Your task to perform on an android device: What's the weather going to be this weekend? Image 0: 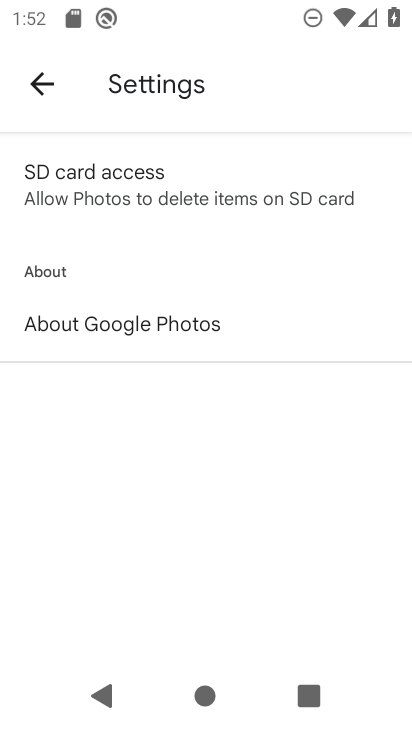
Step 0: press home button
Your task to perform on an android device: What's the weather going to be this weekend? Image 1: 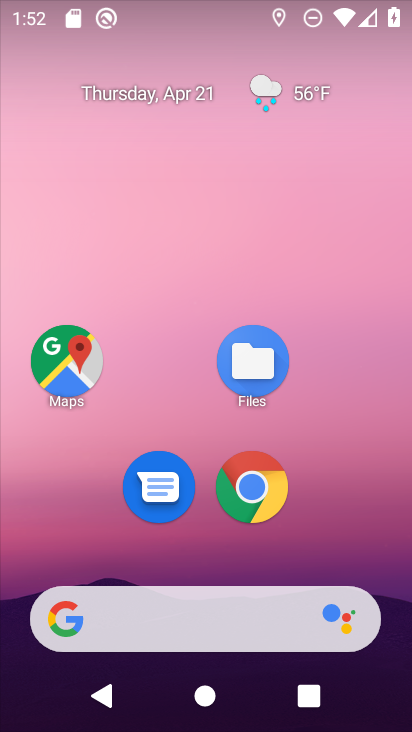
Step 1: click (258, 493)
Your task to perform on an android device: What's the weather going to be this weekend? Image 2: 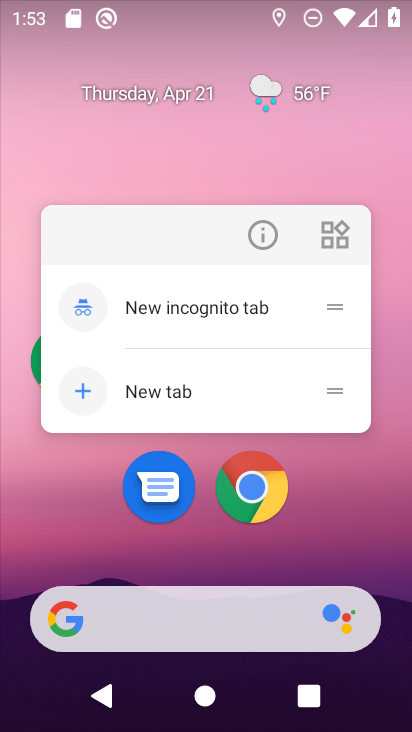
Step 2: click (269, 503)
Your task to perform on an android device: What's the weather going to be this weekend? Image 3: 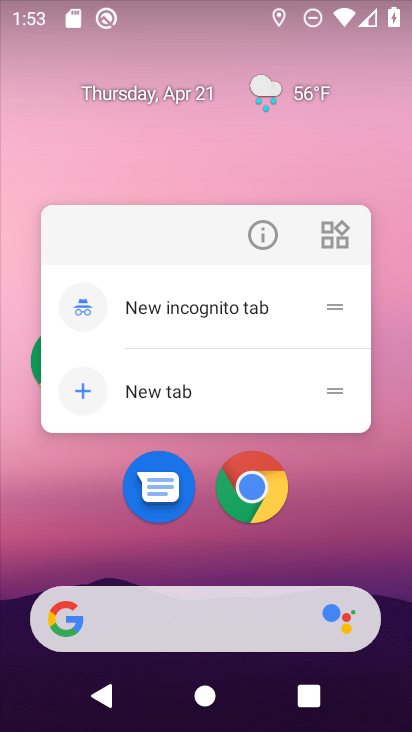
Step 3: click (270, 514)
Your task to perform on an android device: What's the weather going to be this weekend? Image 4: 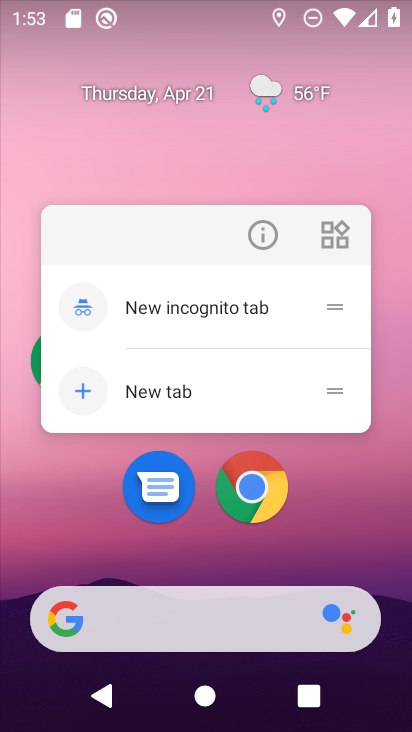
Step 4: click (264, 516)
Your task to perform on an android device: What's the weather going to be this weekend? Image 5: 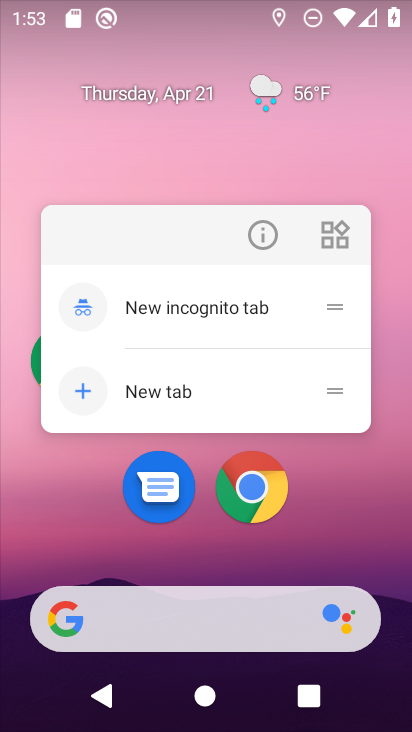
Step 5: click (260, 518)
Your task to perform on an android device: What's the weather going to be this weekend? Image 6: 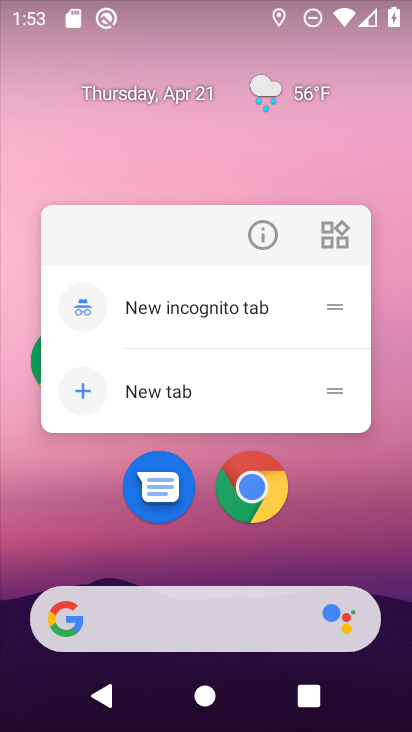
Step 6: click (256, 516)
Your task to perform on an android device: What's the weather going to be this weekend? Image 7: 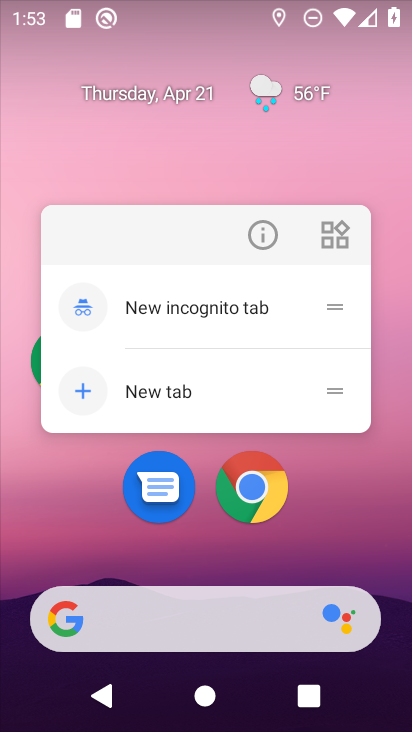
Step 7: click (314, 536)
Your task to perform on an android device: What's the weather going to be this weekend? Image 8: 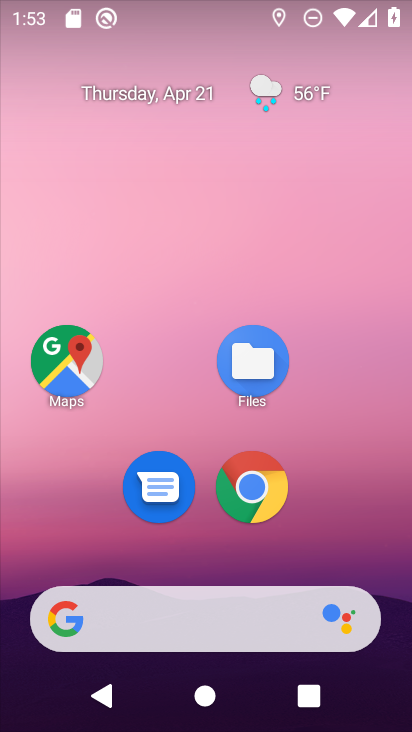
Step 8: drag from (357, 510) to (399, 131)
Your task to perform on an android device: What's the weather going to be this weekend? Image 9: 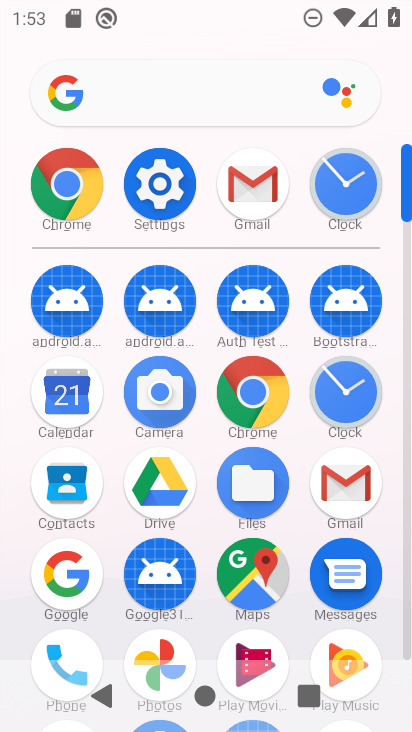
Step 9: click (266, 412)
Your task to perform on an android device: What's the weather going to be this weekend? Image 10: 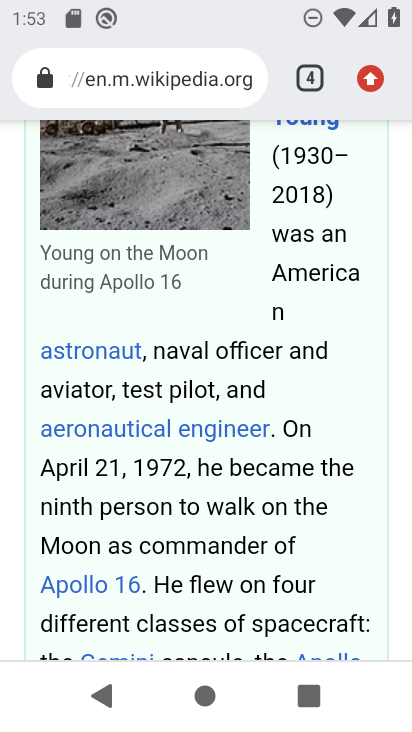
Step 10: click (137, 74)
Your task to perform on an android device: What's the weather going to be this weekend? Image 11: 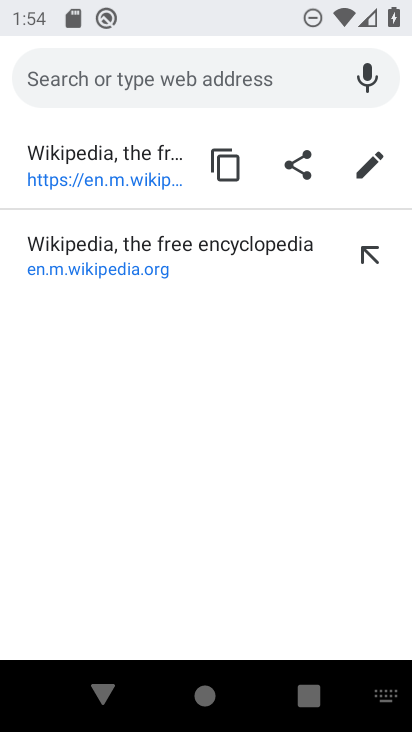
Step 11: type "what's the weather going to be this weekend"
Your task to perform on an android device: What's the weather going to be this weekend? Image 12: 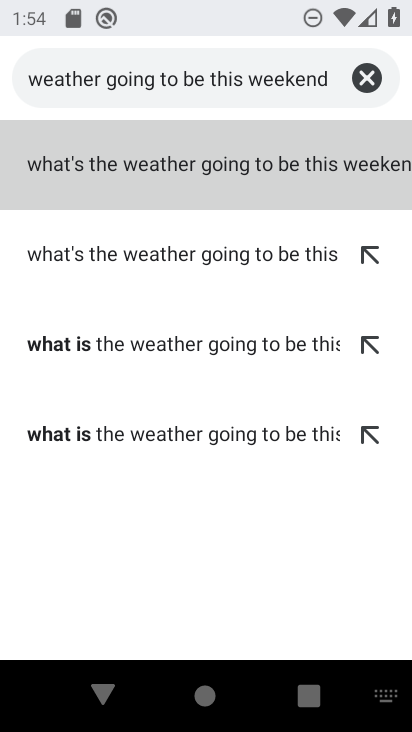
Step 12: click (193, 167)
Your task to perform on an android device: What's the weather going to be this weekend? Image 13: 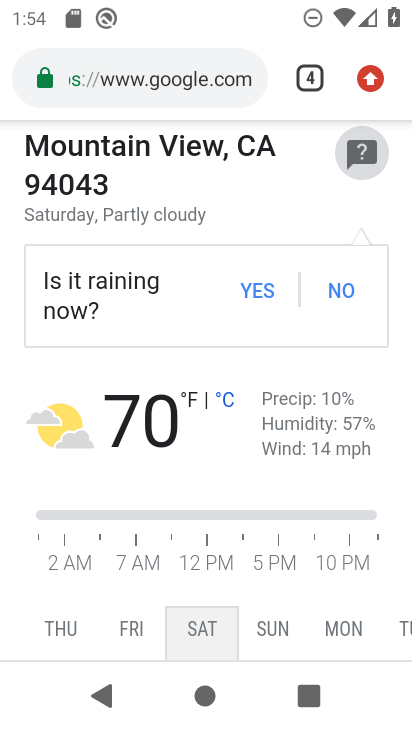
Step 13: task complete